Your task to perform on an android device: Show me the alarms in the clock app Image 0: 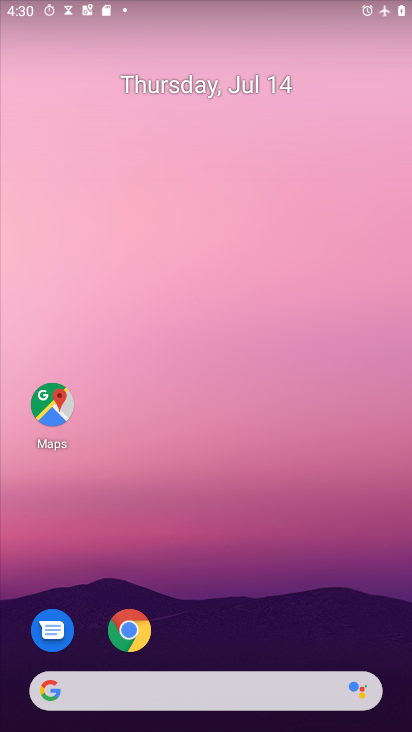
Step 0: drag from (205, 680) to (205, 200)
Your task to perform on an android device: Show me the alarms in the clock app Image 1: 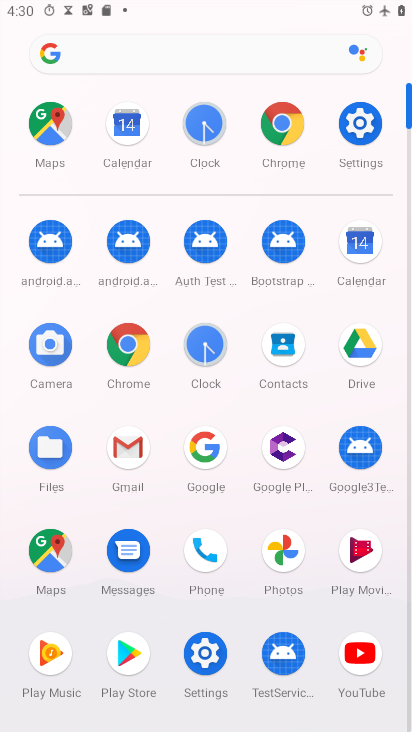
Step 1: click (204, 343)
Your task to perform on an android device: Show me the alarms in the clock app Image 2: 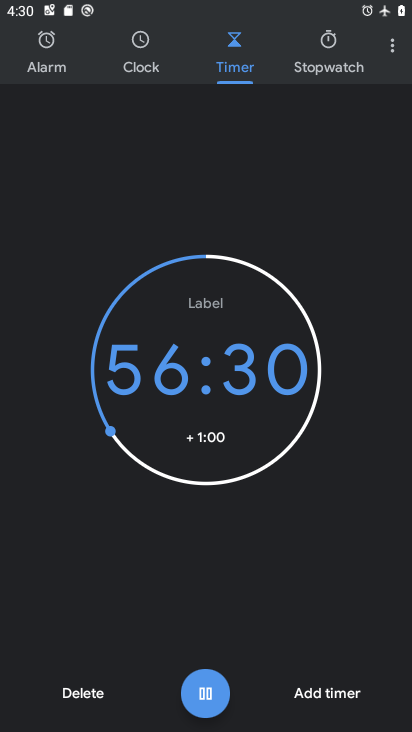
Step 2: click (48, 59)
Your task to perform on an android device: Show me the alarms in the clock app Image 3: 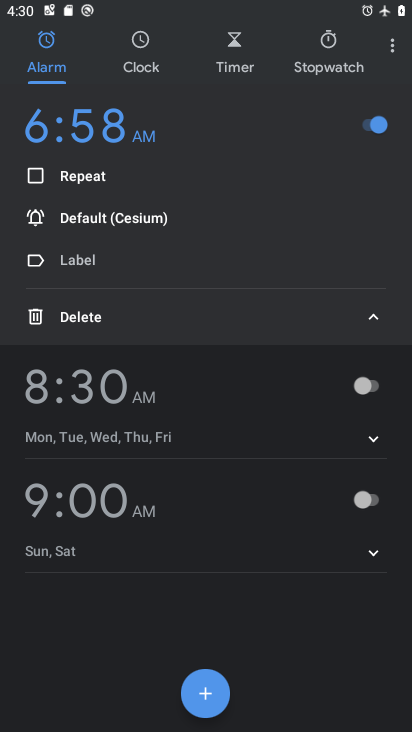
Step 3: task complete